Your task to perform on an android device: Search for the best rated tool bag on Lowe's. Image 0: 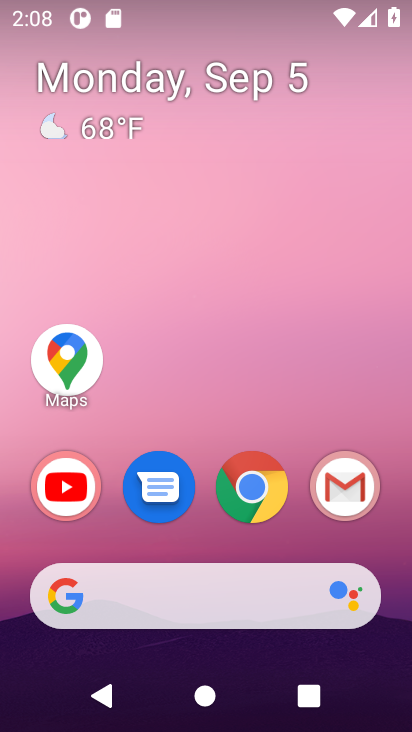
Step 0: click (249, 488)
Your task to perform on an android device: Search for the best rated tool bag on Lowe's. Image 1: 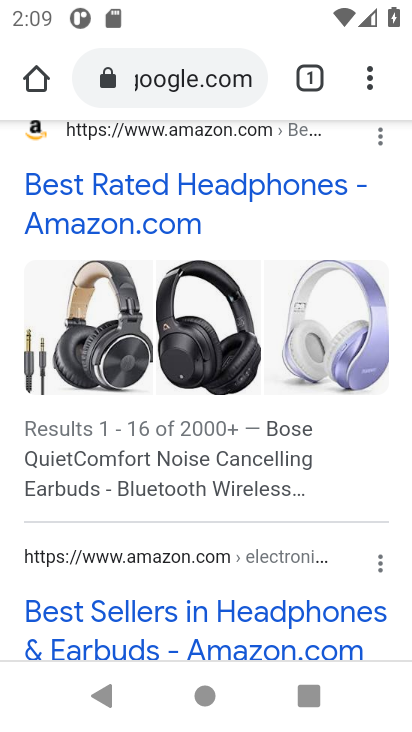
Step 1: click (173, 68)
Your task to perform on an android device: Search for the best rated tool bag on Lowe's. Image 2: 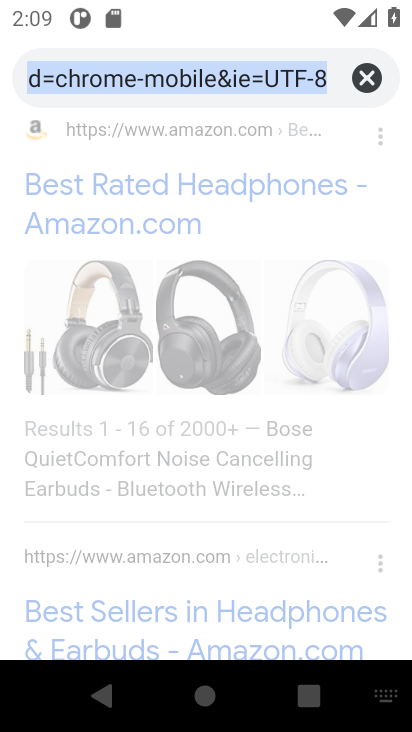
Step 2: click (362, 78)
Your task to perform on an android device: Search for the best rated tool bag on Lowe's. Image 3: 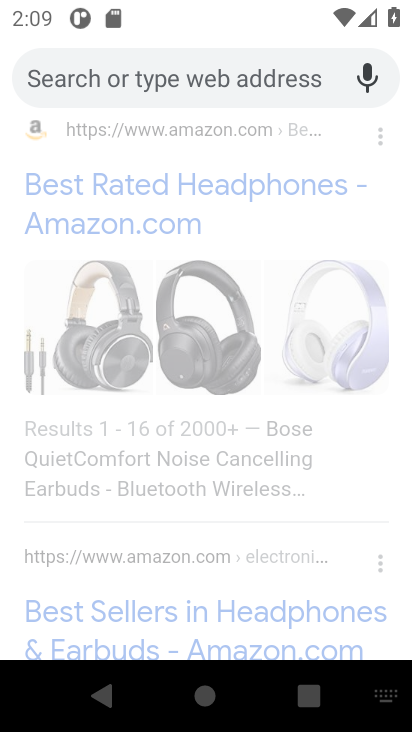
Step 3: type "the best rated tool bag on Lowe's."
Your task to perform on an android device: Search for the best rated tool bag on Lowe's. Image 4: 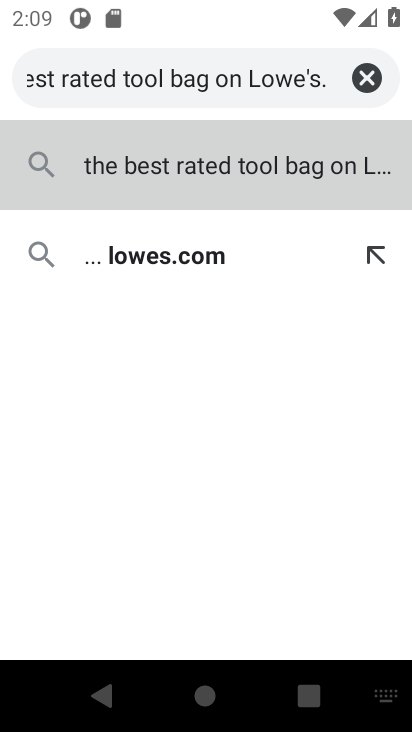
Step 4: click (275, 184)
Your task to perform on an android device: Search for the best rated tool bag on Lowe's. Image 5: 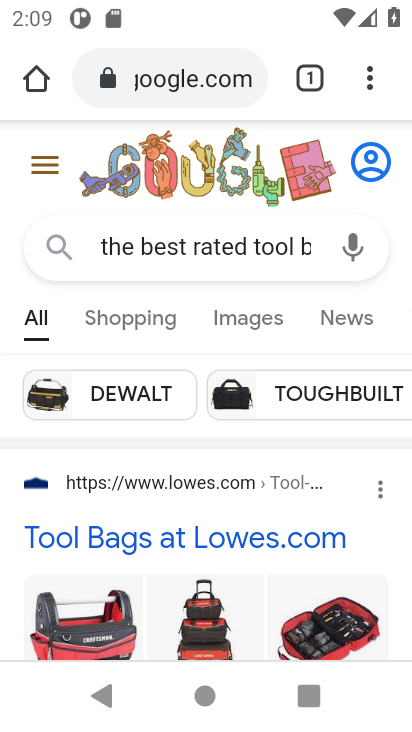
Step 5: task complete